Your task to perform on an android device: Show me popular videos on Youtube Image 0: 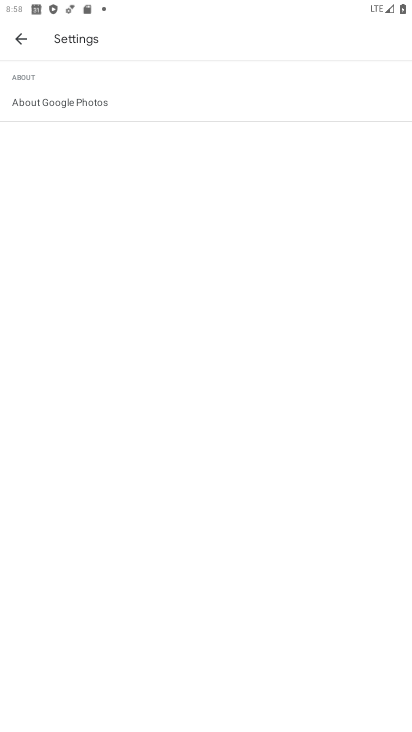
Step 0: press home button
Your task to perform on an android device: Show me popular videos on Youtube Image 1: 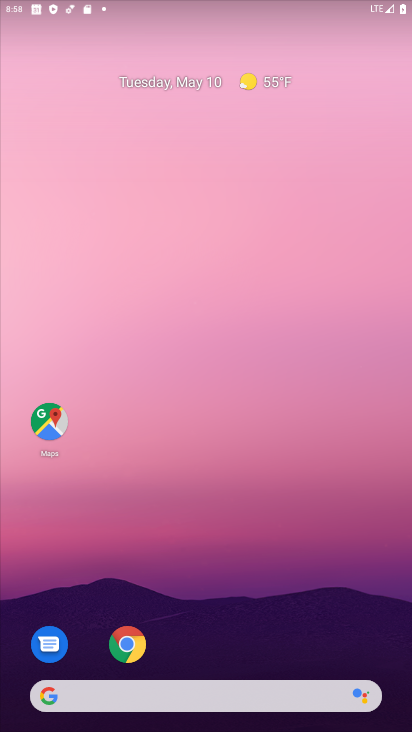
Step 1: drag from (254, 660) to (213, 204)
Your task to perform on an android device: Show me popular videos on Youtube Image 2: 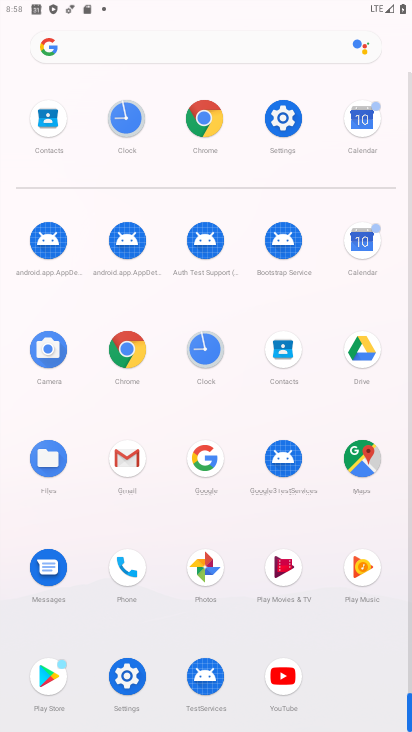
Step 2: drag from (260, 487) to (263, 299)
Your task to perform on an android device: Show me popular videos on Youtube Image 3: 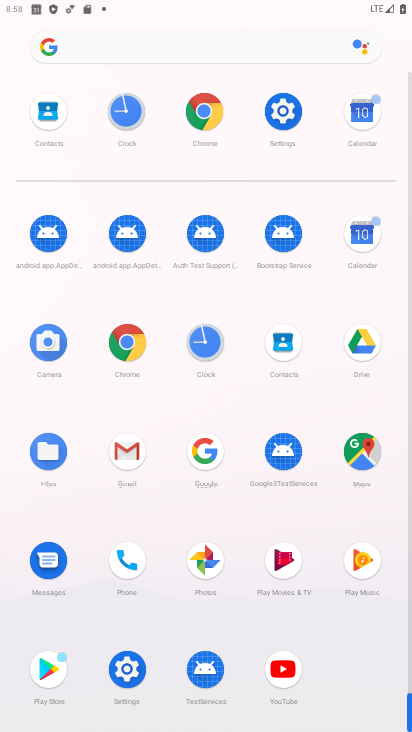
Step 3: click (284, 677)
Your task to perform on an android device: Show me popular videos on Youtube Image 4: 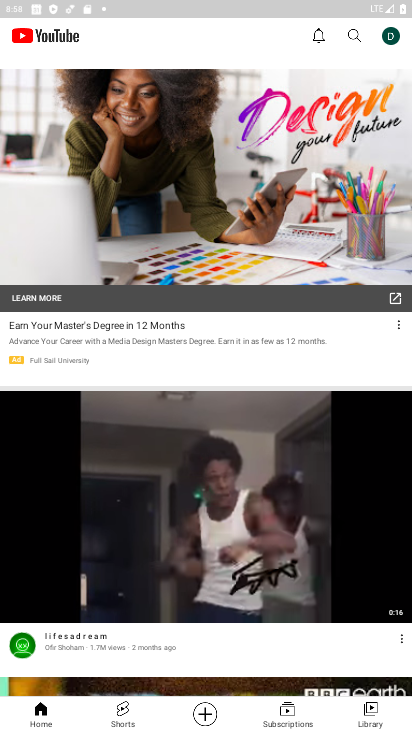
Step 4: task complete